Your task to perform on an android device: delete a single message in the gmail app Image 0: 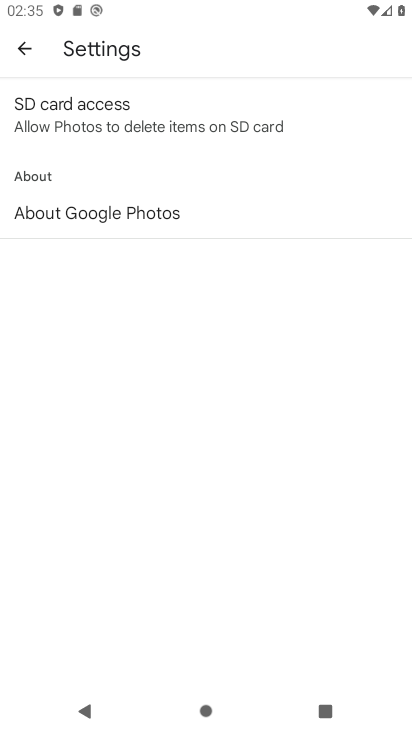
Step 0: press home button
Your task to perform on an android device: delete a single message in the gmail app Image 1: 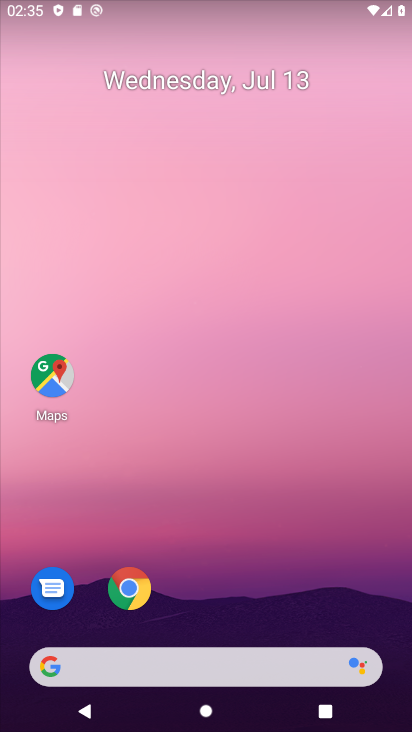
Step 1: drag from (287, 486) to (257, 111)
Your task to perform on an android device: delete a single message in the gmail app Image 2: 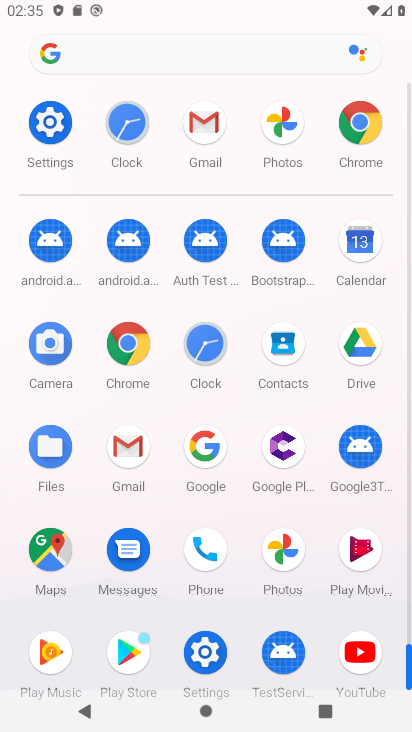
Step 2: click (215, 139)
Your task to perform on an android device: delete a single message in the gmail app Image 3: 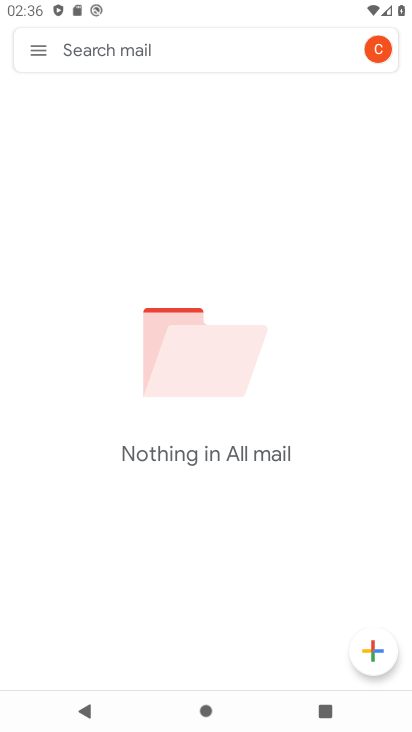
Step 3: task complete